Your task to perform on an android device: allow cookies in the chrome app Image 0: 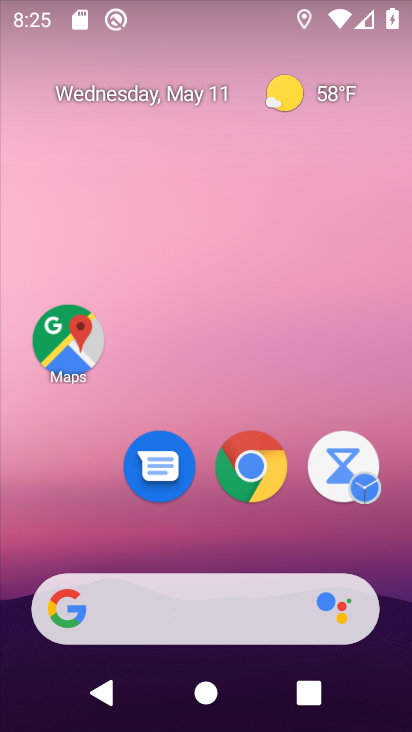
Step 0: click (223, 453)
Your task to perform on an android device: allow cookies in the chrome app Image 1: 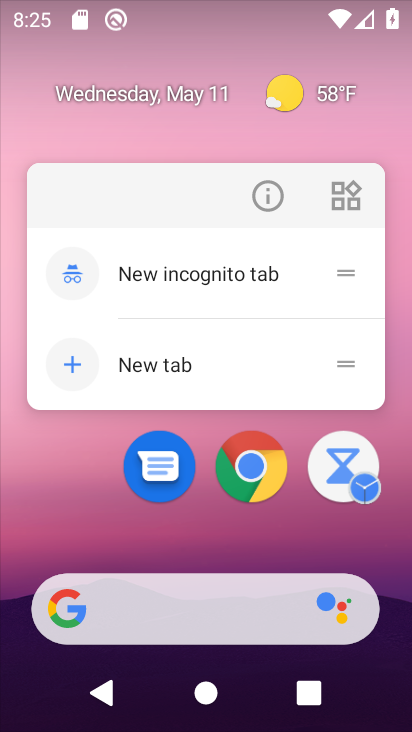
Step 1: click (258, 461)
Your task to perform on an android device: allow cookies in the chrome app Image 2: 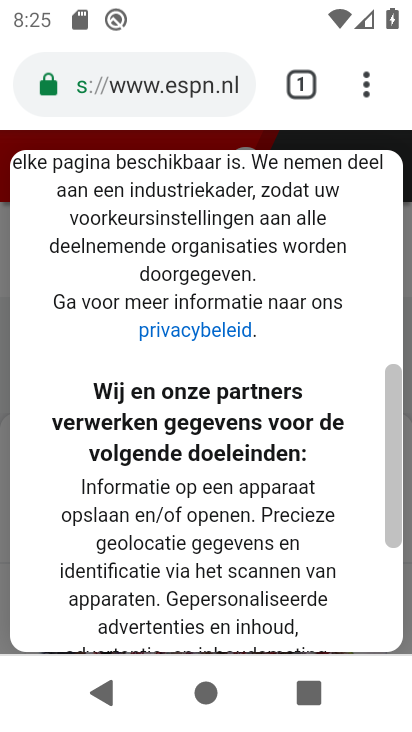
Step 2: click (372, 87)
Your task to perform on an android device: allow cookies in the chrome app Image 3: 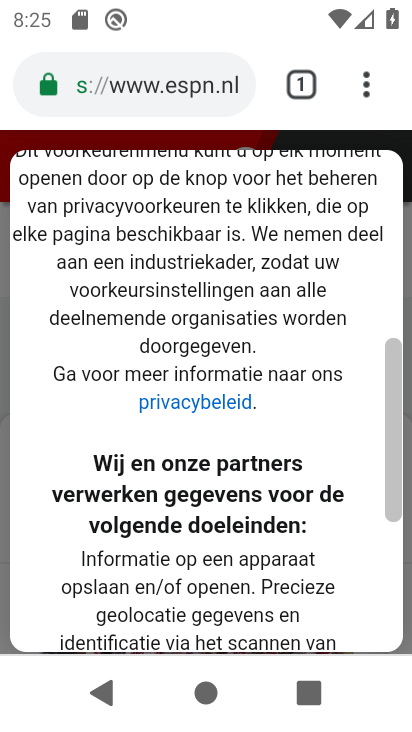
Step 3: click (364, 90)
Your task to perform on an android device: allow cookies in the chrome app Image 4: 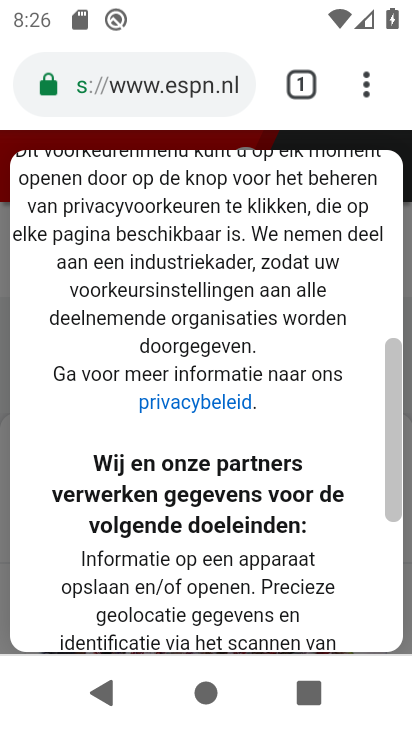
Step 4: click (356, 91)
Your task to perform on an android device: allow cookies in the chrome app Image 5: 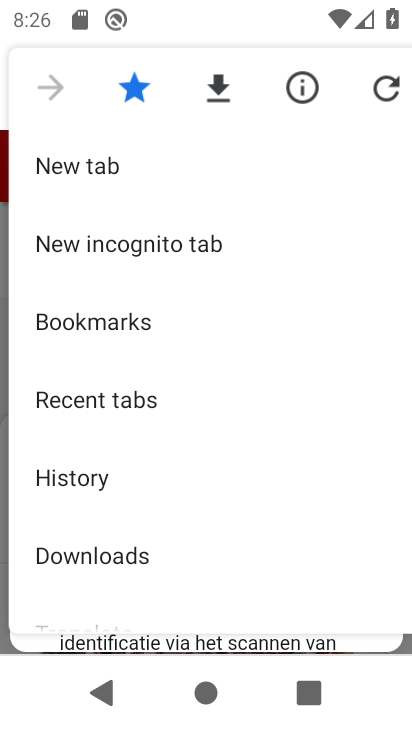
Step 5: drag from (134, 529) to (163, 201)
Your task to perform on an android device: allow cookies in the chrome app Image 6: 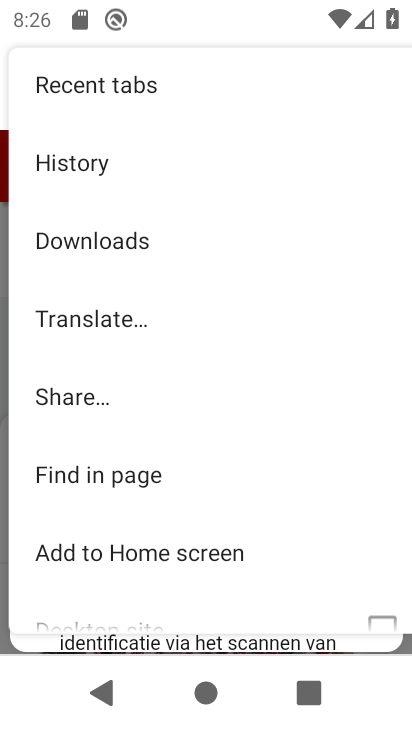
Step 6: drag from (178, 487) to (171, 235)
Your task to perform on an android device: allow cookies in the chrome app Image 7: 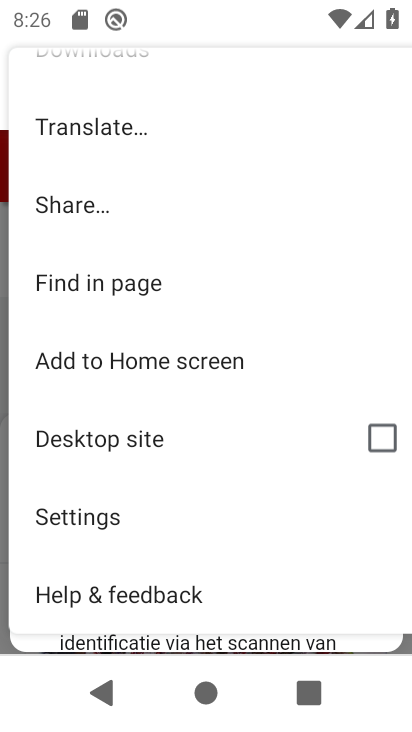
Step 7: click (194, 511)
Your task to perform on an android device: allow cookies in the chrome app Image 8: 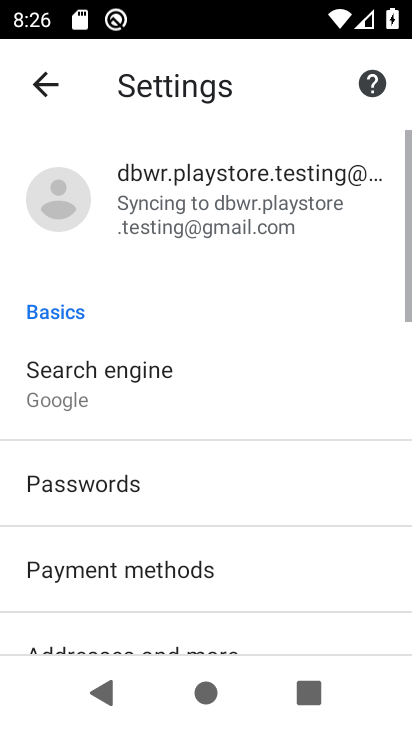
Step 8: drag from (201, 546) to (221, 280)
Your task to perform on an android device: allow cookies in the chrome app Image 9: 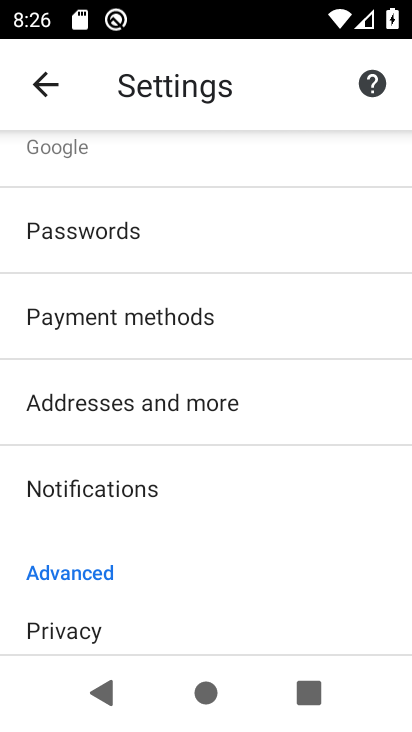
Step 9: drag from (207, 562) to (213, 234)
Your task to perform on an android device: allow cookies in the chrome app Image 10: 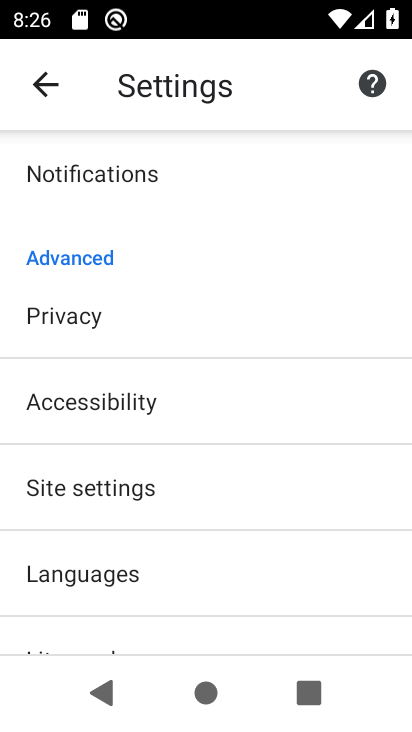
Step 10: click (163, 489)
Your task to perform on an android device: allow cookies in the chrome app Image 11: 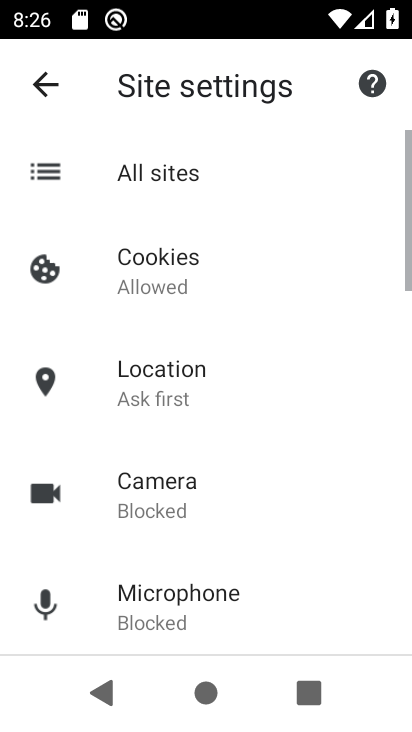
Step 11: click (145, 254)
Your task to perform on an android device: allow cookies in the chrome app Image 12: 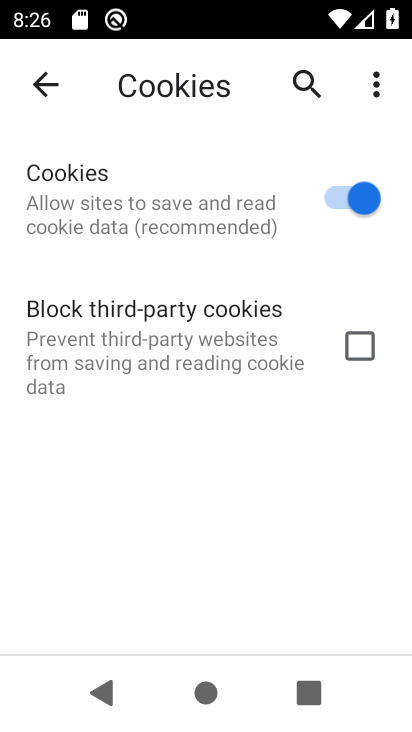
Step 12: task complete